Your task to perform on an android device: Is it going to rain today? Image 0: 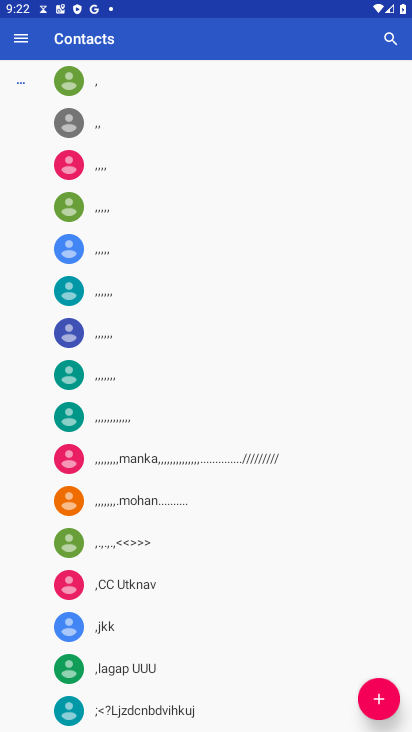
Step 0: press back button
Your task to perform on an android device: Is it going to rain today? Image 1: 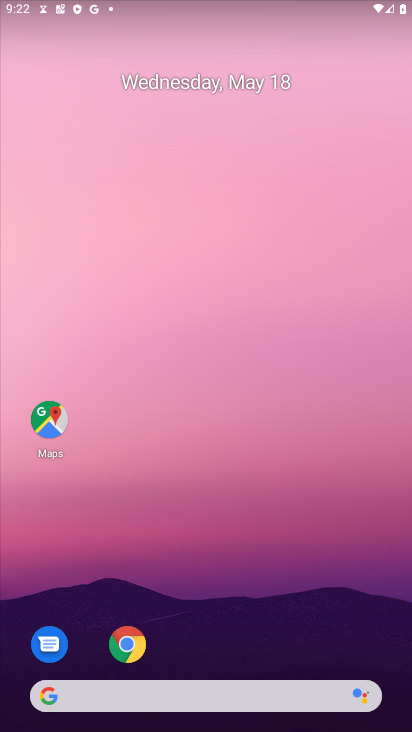
Step 1: drag from (243, 605) to (241, 92)
Your task to perform on an android device: Is it going to rain today? Image 2: 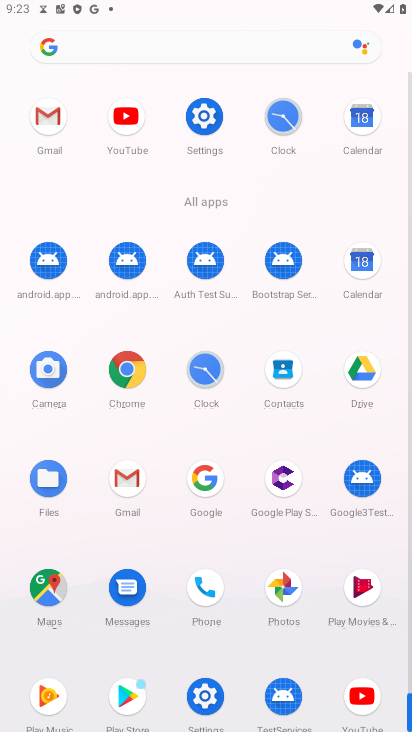
Step 2: click (201, 480)
Your task to perform on an android device: Is it going to rain today? Image 3: 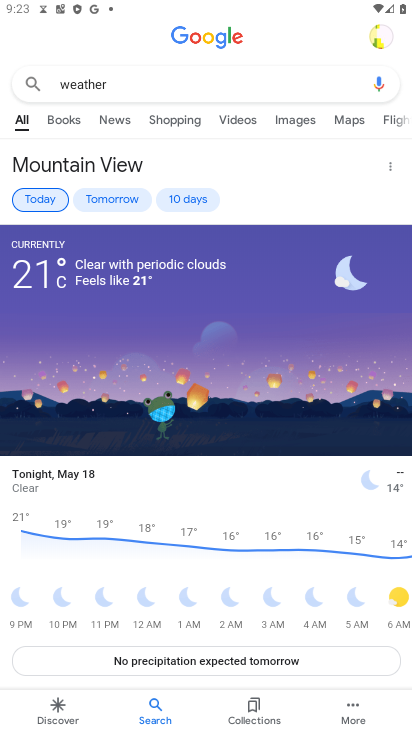
Step 3: task complete